Your task to perform on an android device: Open Chrome and go to the settings page Image 0: 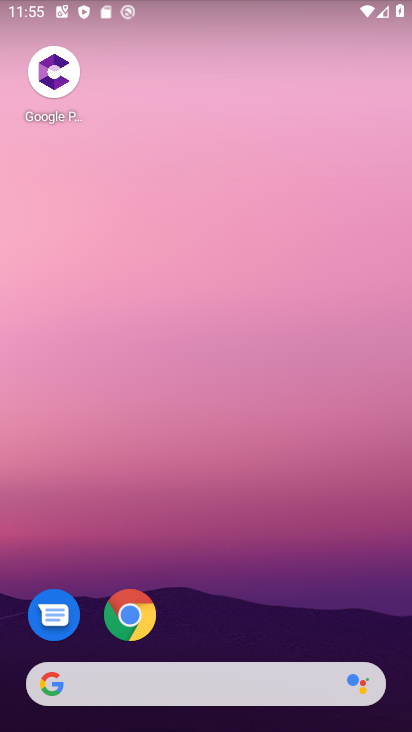
Step 0: drag from (314, 600) to (271, 194)
Your task to perform on an android device: Open Chrome and go to the settings page Image 1: 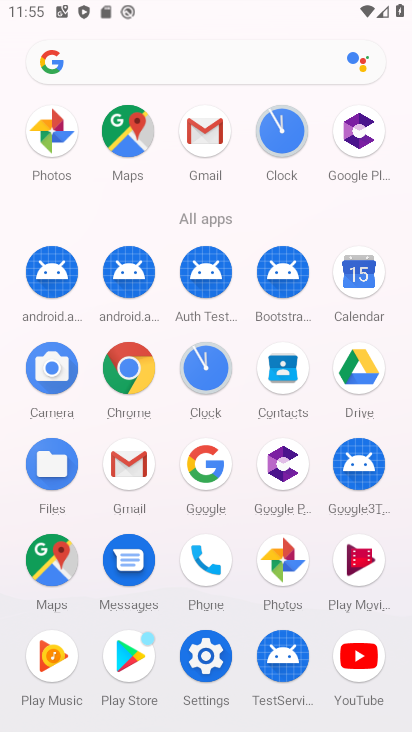
Step 1: click (135, 383)
Your task to perform on an android device: Open Chrome and go to the settings page Image 2: 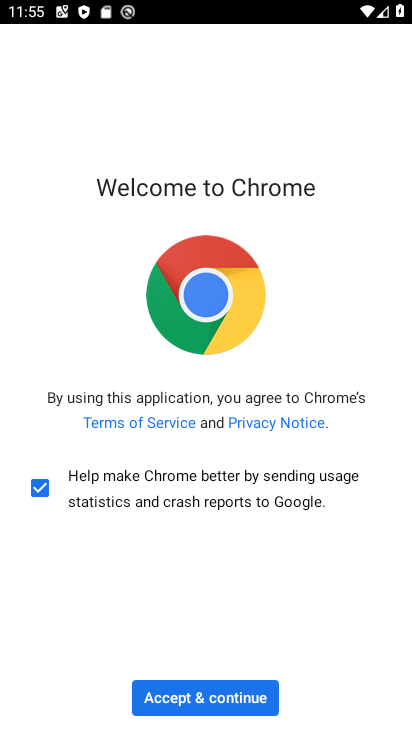
Step 2: click (193, 704)
Your task to perform on an android device: Open Chrome and go to the settings page Image 3: 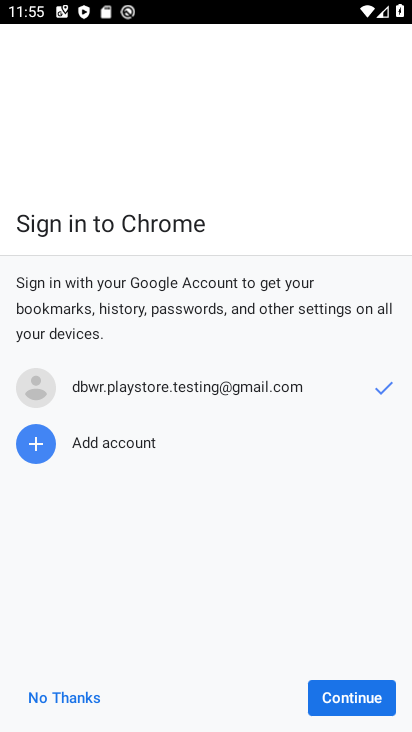
Step 3: click (345, 696)
Your task to perform on an android device: Open Chrome and go to the settings page Image 4: 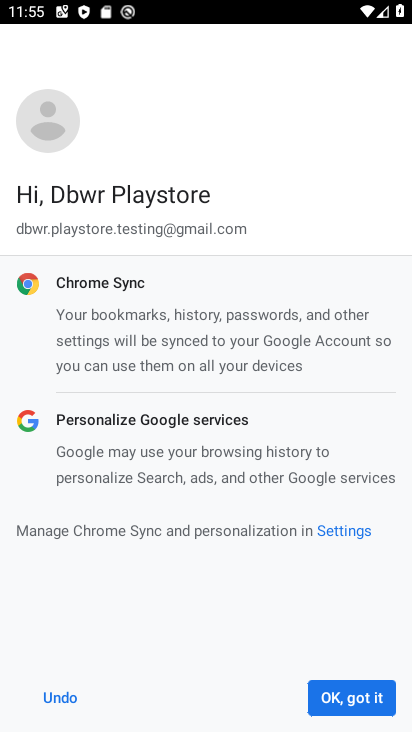
Step 4: click (345, 696)
Your task to perform on an android device: Open Chrome and go to the settings page Image 5: 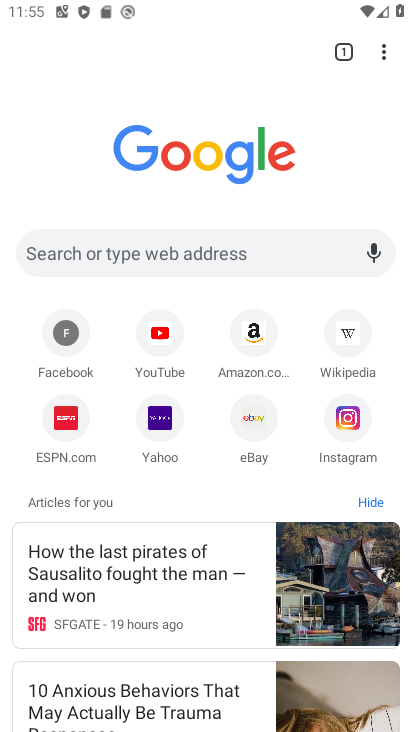
Step 5: task complete